Your task to perform on an android device: What is the capital of France? Image 0: 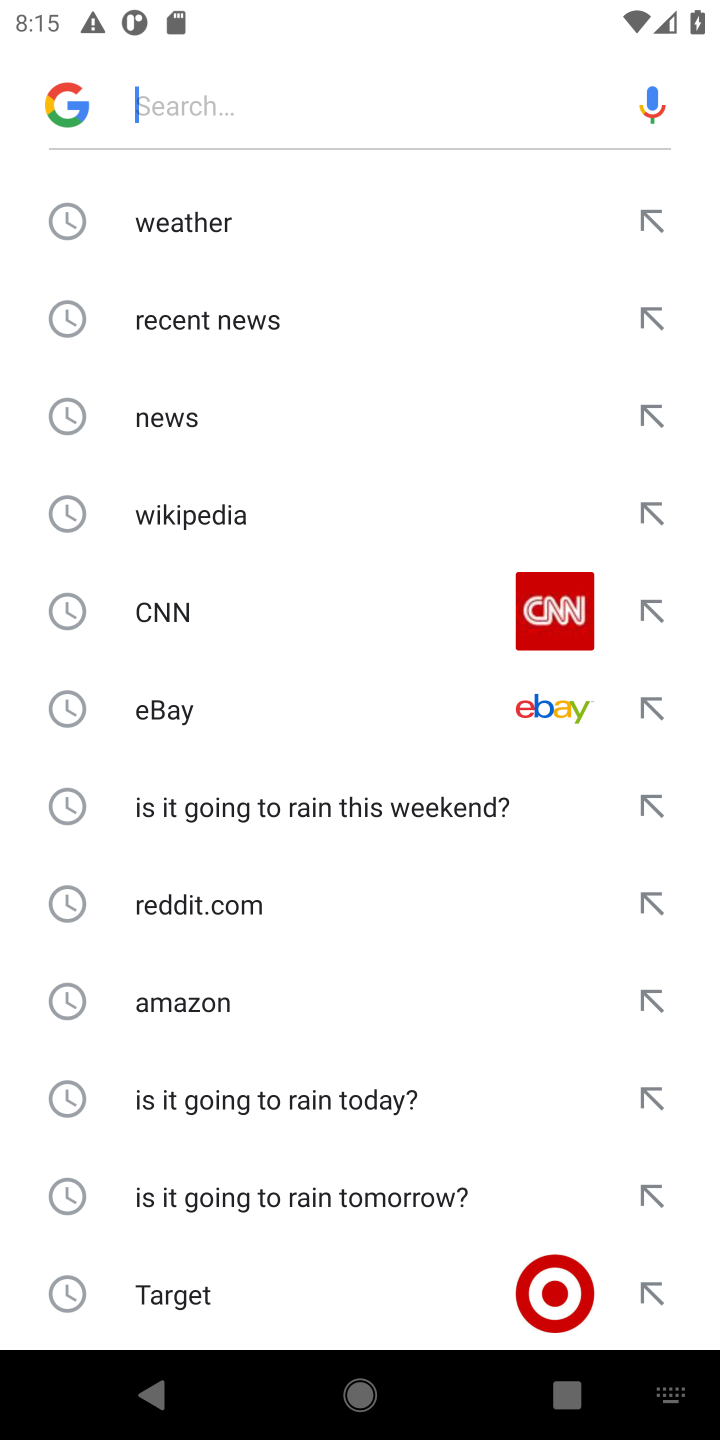
Step 0: type "capital of France"
Your task to perform on an android device: What is the capital of France? Image 1: 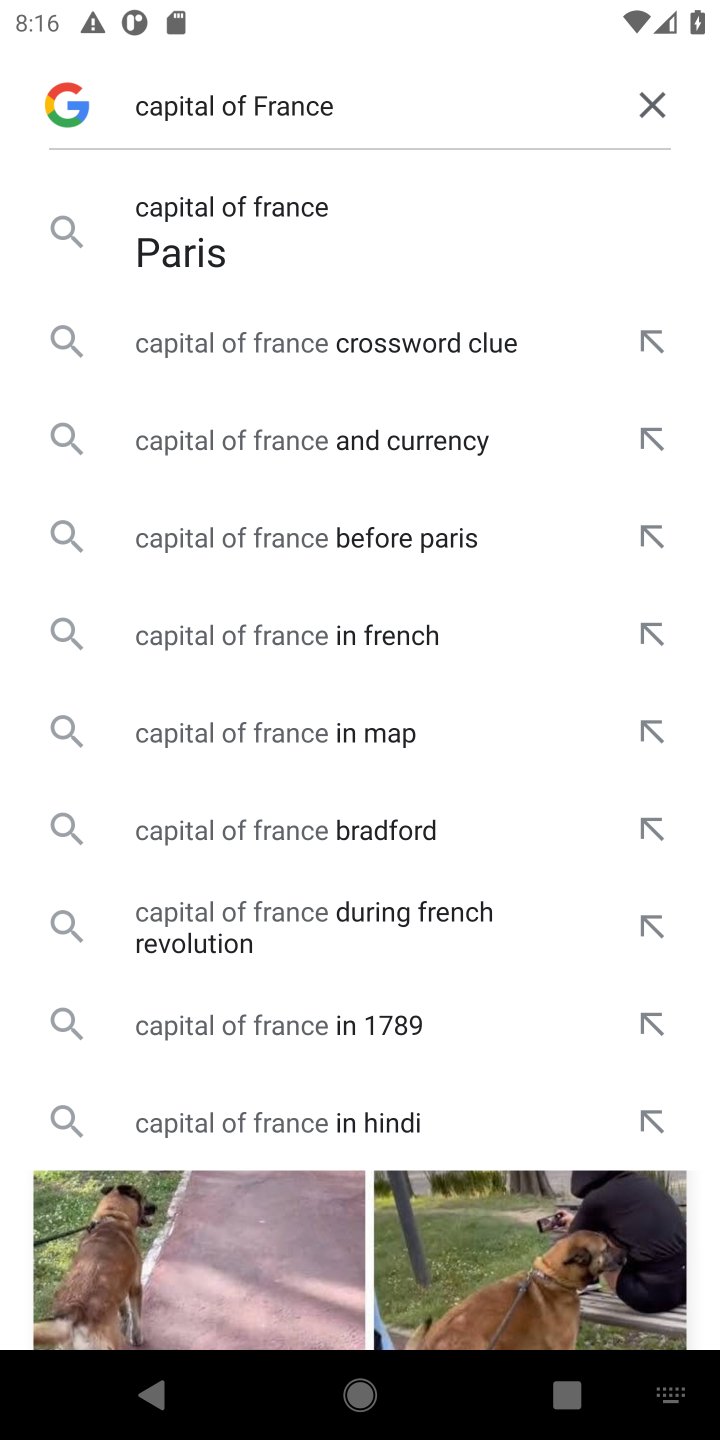
Step 1: click (245, 259)
Your task to perform on an android device: What is the capital of France? Image 2: 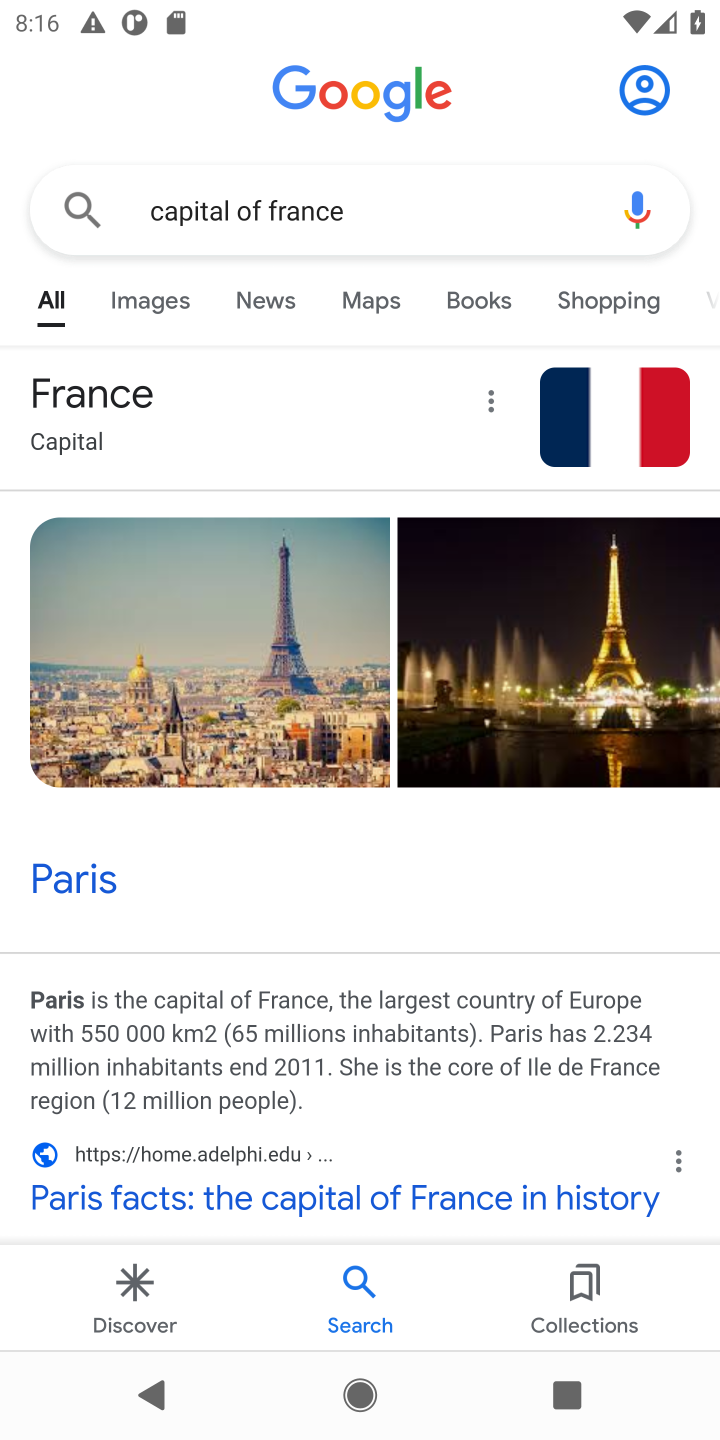
Step 2: task complete